Your task to perform on an android device: Open Youtube and go to "Your channel" Image 0: 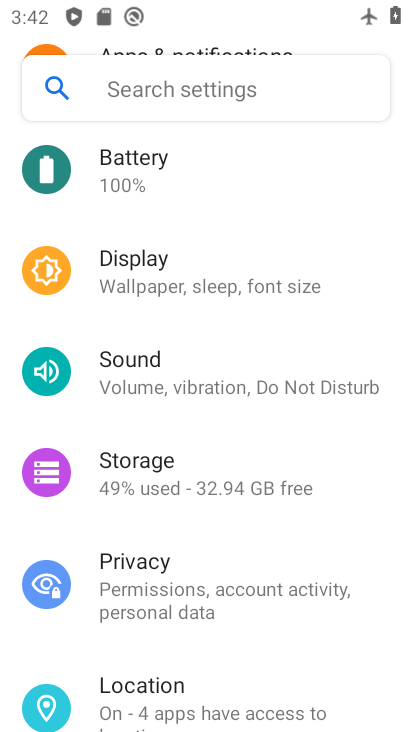
Step 0: press home button
Your task to perform on an android device: Open Youtube and go to "Your channel" Image 1: 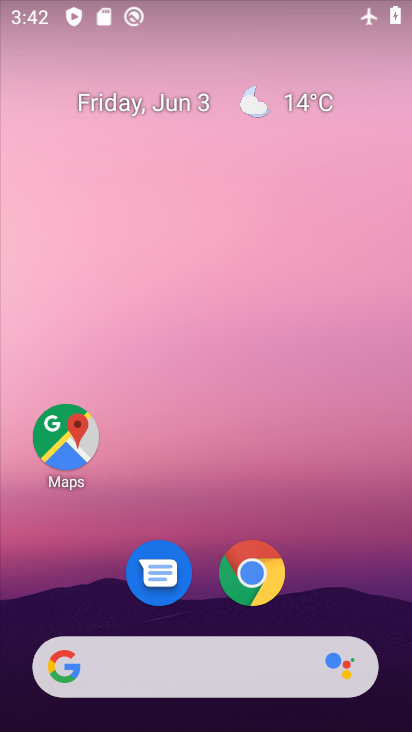
Step 1: drag from (211, 625) to (318, 179)
Your task to perform on an android device: Open Youtube and go to "Your channel" Image 2: 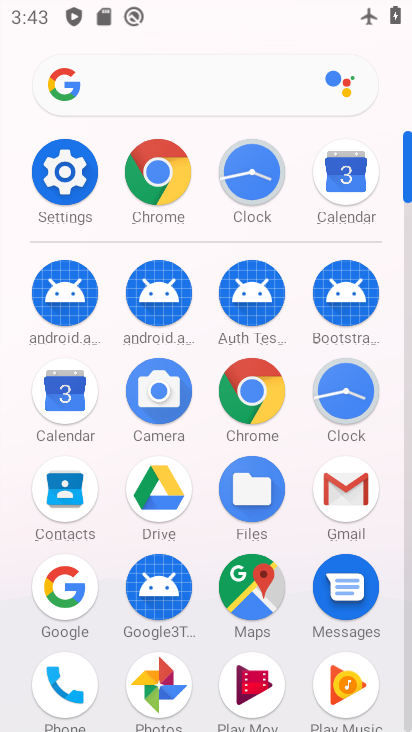
Step 2: drag from (227, 412) to (297, 107)
Your task to perform on an android device: Open Youtube and go to "Your channel" Image 3: 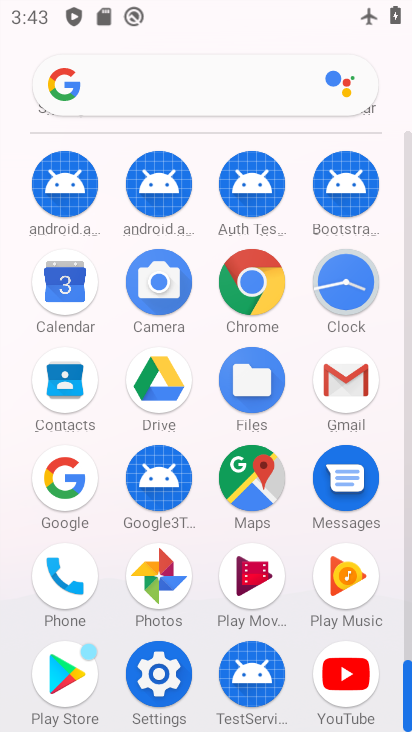
Step 3: click (347, 688)
Your task to perform on an android device: Open Youtube and go to "Your channel" Image 4: 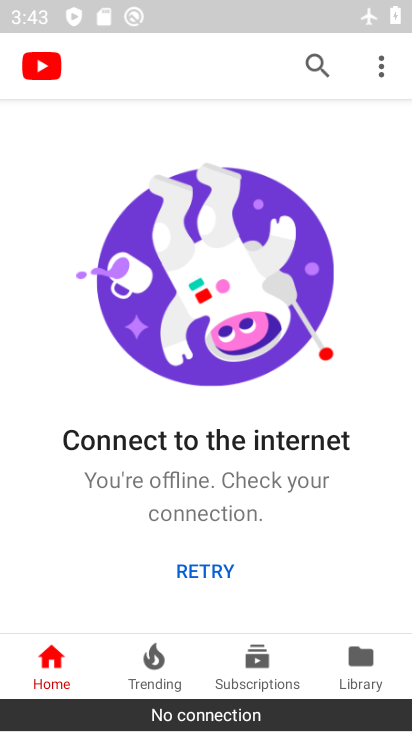
Step 4: click (379, 75)
Your task to perform on an android device: Open Youtube and go to "Your channel" Image 5: 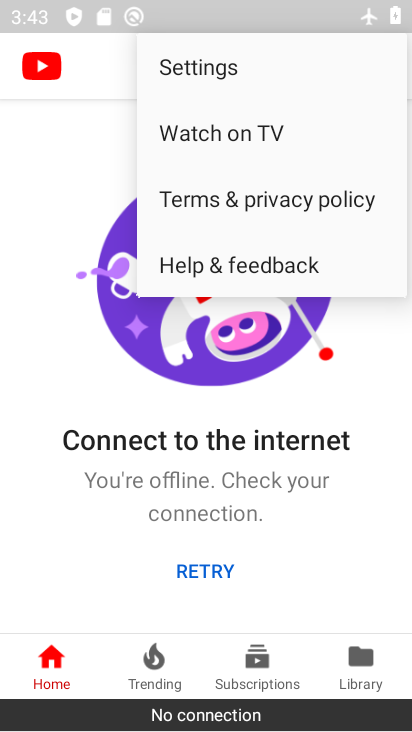
Step 5: click (236, 70)
Your task to perform on an android device: Open Youtube and go to "Your channel" Image 6: 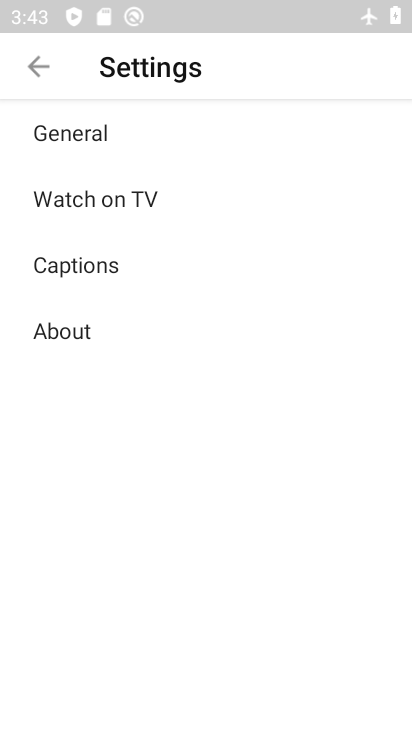
Step 6: task complete